Your task to perform on an android device: Go to Maps Image 0: 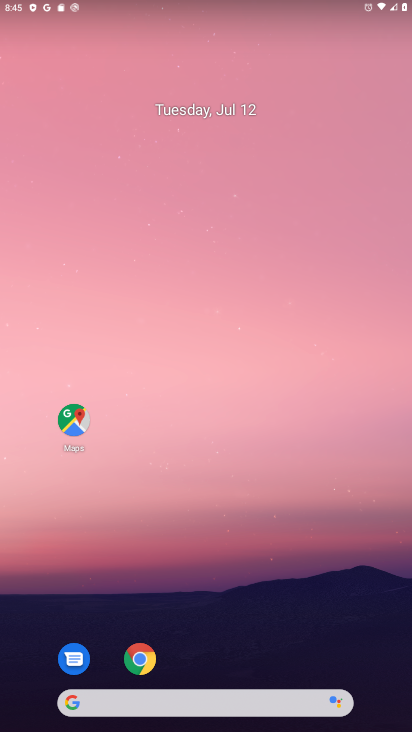
Step 0: drag from (240, 643) to (215, 365)
Your task to perform on an android device: Go to Maps Image 1: 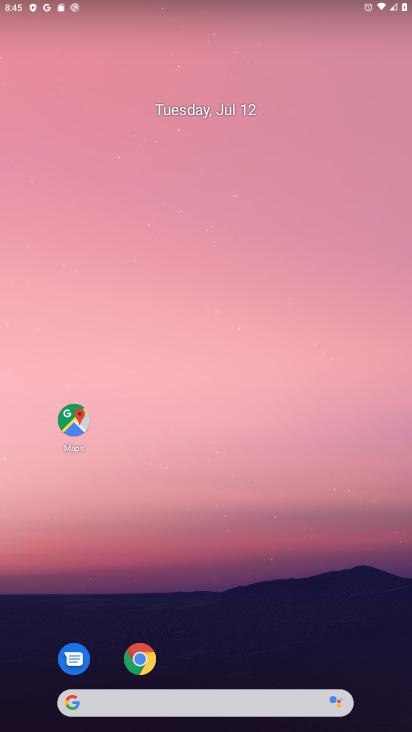
Step 1: drag from (237, 645) to (190, 154)
Your task to perform on an android device: Go to Maps Image 2: 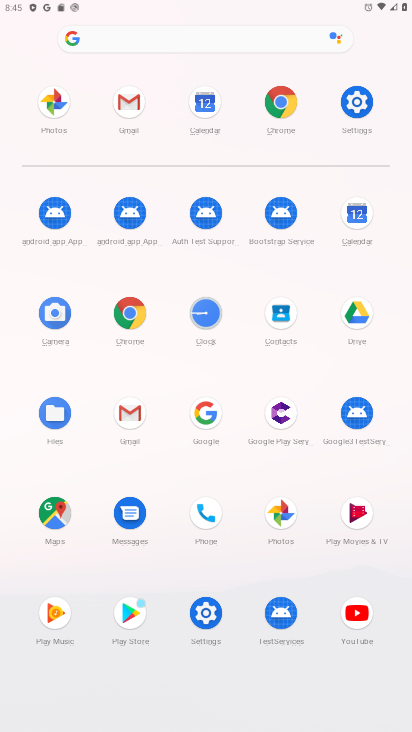
Step 2: click (60, 508)
Your task to perform on an android device: Go to Maps Image 3: 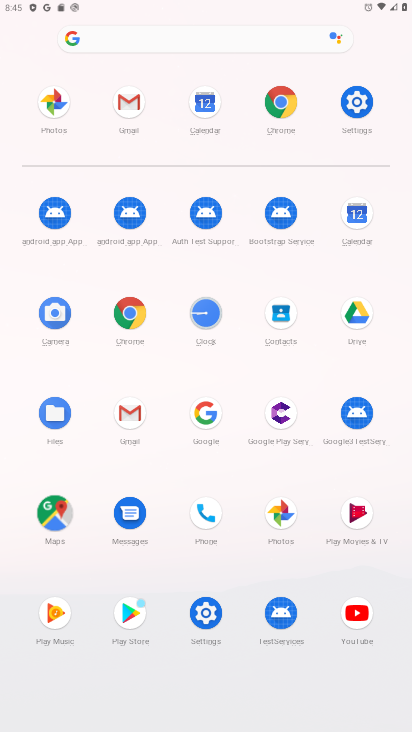
Step 3: click (60, 508)
Your task to perform on an android device: Go to Maps Image 4: 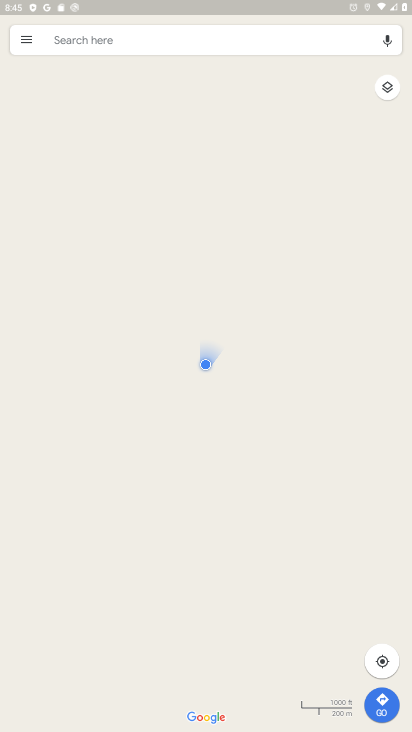
Step 4: task complete